Your task to perform on an android device: Show me productivity apps on the Play Store Image 0: 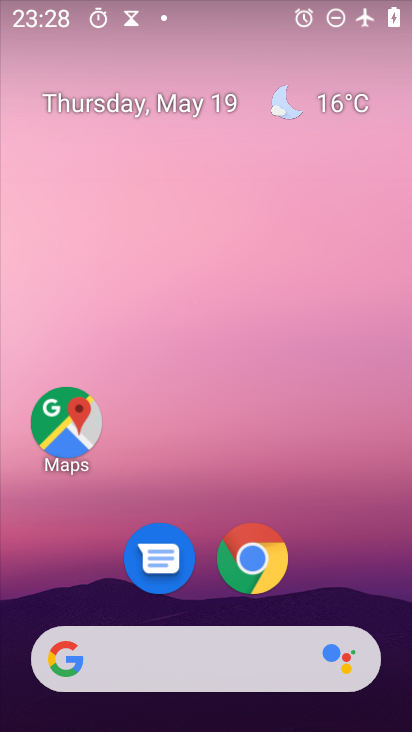
Step 0: drag from (202, 727) to (203, 217)
Your task to perform on an android device: Show me productivity apps on the Play Store Image 1: 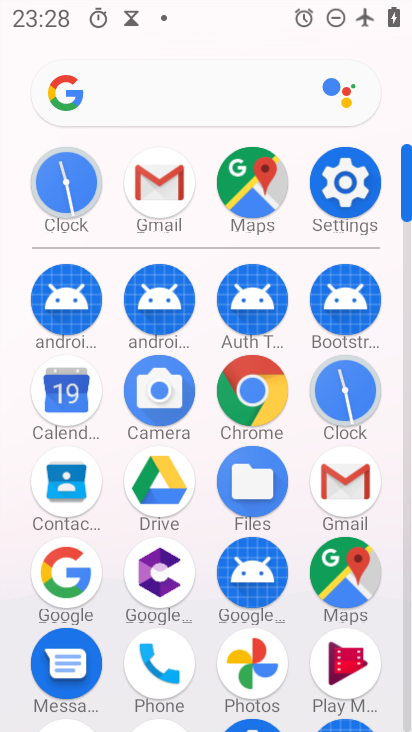
Step 1: drag from (203, 634) to (209, 301)
Your task to perform on an android device: Show me productivity apps on the Play Store Image 2: 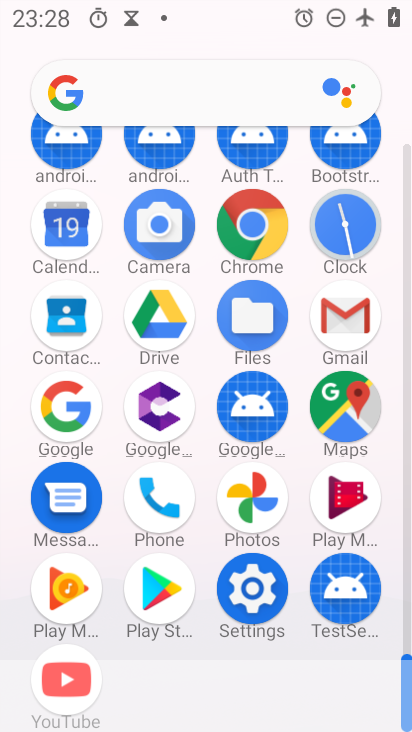
Step 2: click (148, 594)
Your task to perform on an android device: Show me productivity apps on the Play Store Image 3: 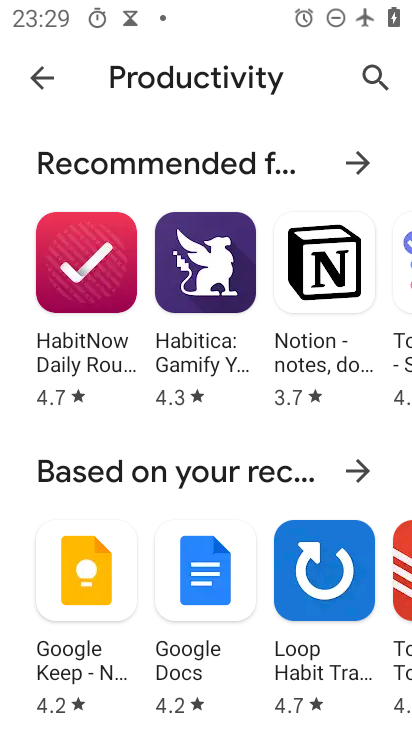
Step 3: task complete